Your task to perform on an android device: turn on location history Image 0: 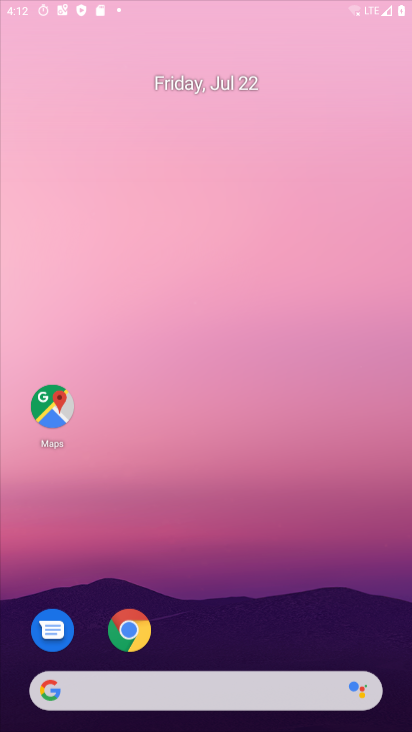
Step 0: drag from (194, 660) to (185, 69)
Your task to perform on an android device: turn on location history Image 1: 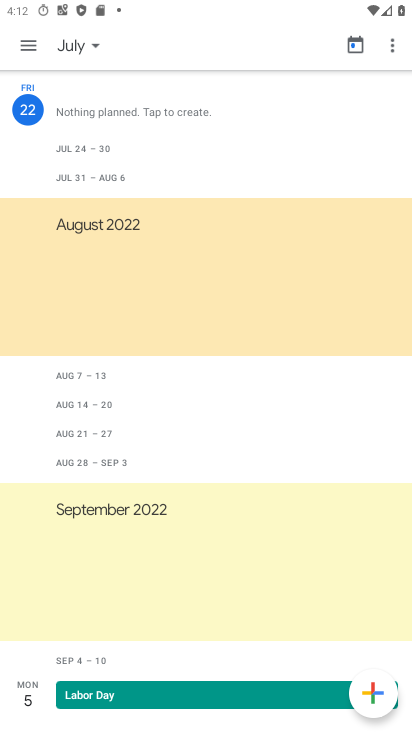
Step 1: press home button
Your task to perform on an android device: turn on location history Image 2: 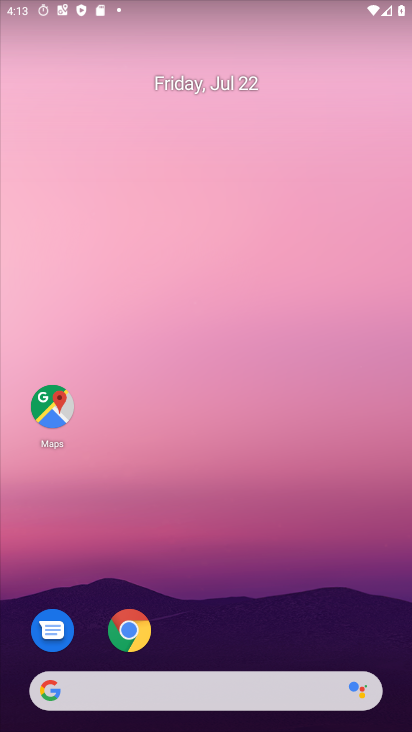
Step 2: drag from (200, 593) to (179, 102)
Your task to perform on an android device: turn on location history Image 3: 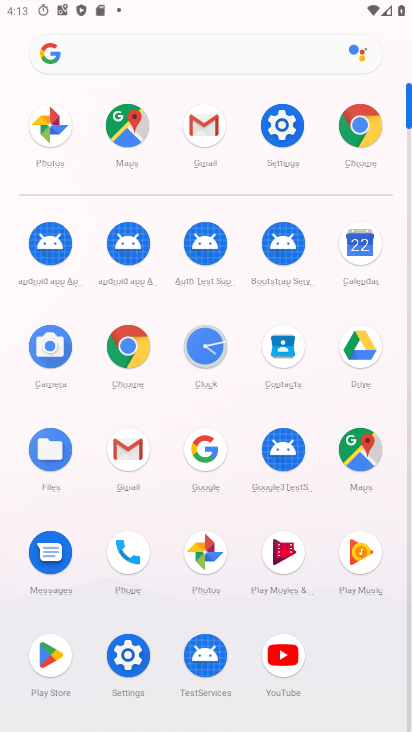
Step 3: click (278, 127)
Your task to perform on an android device: turn on location history Image 4: 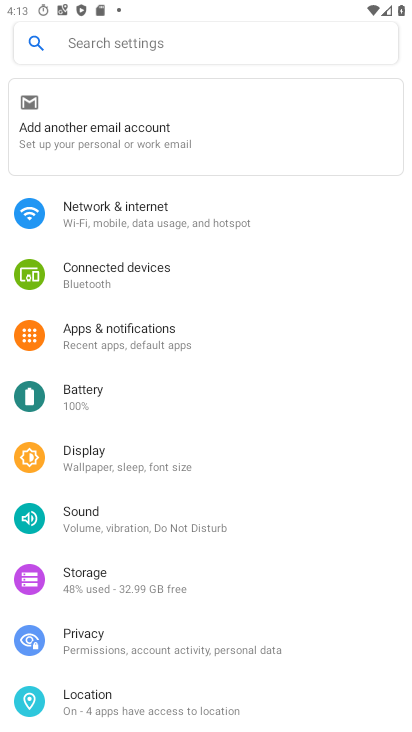
Step 4: click (126, 709)
Your task to perform on an android device: turn on location history Image 5: 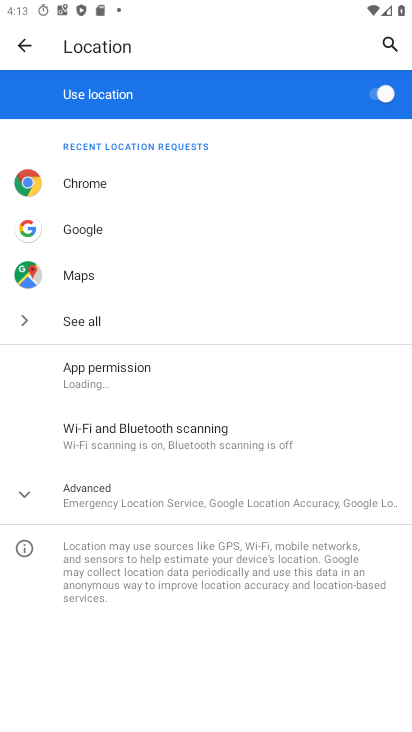
Step 5: click (138, 488)
Your task to perform on an android device: turn on location history Image 6: 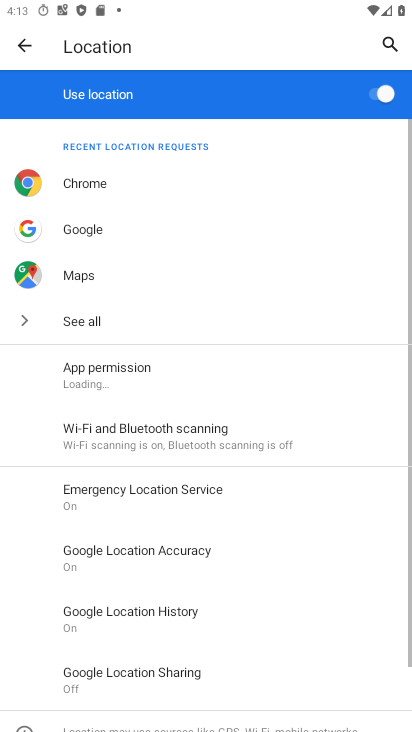
Step 6: click (181, 611)
Your task to perform on an android device: turn on location history Image 7: 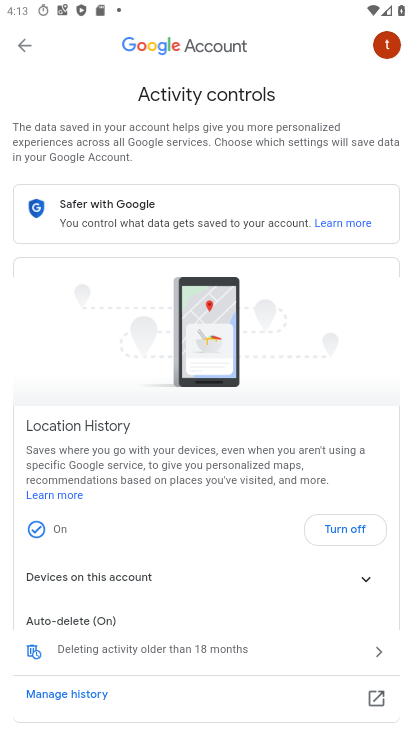
Step 7: task complete